Your task to perform on an android device: Go to CNN.com Image 0: 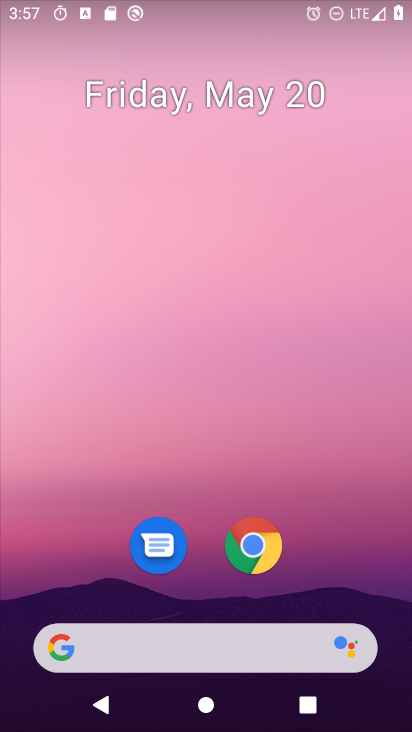
Step 0: drag from (252, 569) to (307, 4)
Your task to perform on an android device: Go to CNN.com Image 1: 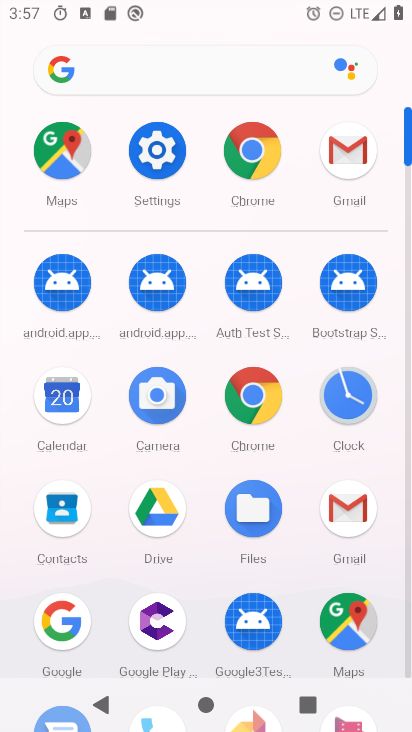
Step 1: click (248, 409)
Your task to perform on an android device: Go to CNN.com Image 2: 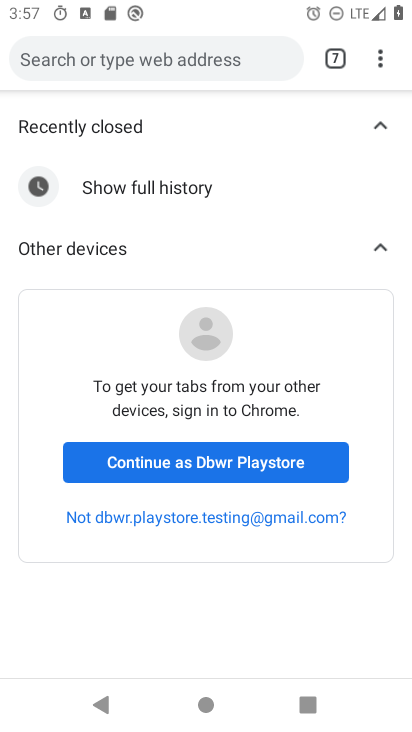
Step 2: click (199, 68)
Your task to perform on an android device: Go to CNN.com Image 3: 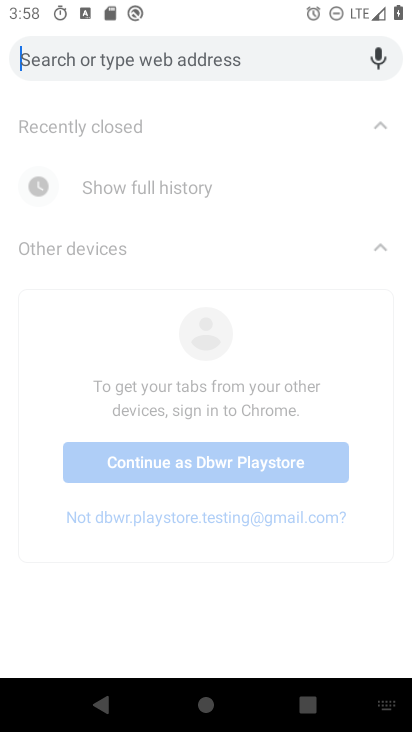
Step 3: type "cnn.com"
Your task to perform on an android device: Go to CNN.com Image 4: 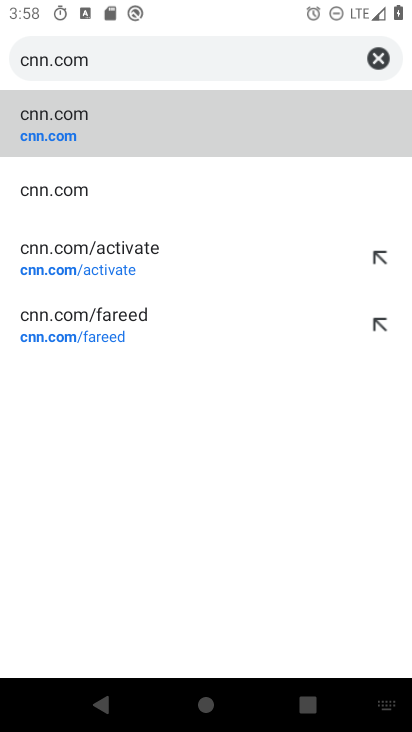
Step 4: click (112, 119)
Your task to perform on an android device: Go to CNN.com Image 5: 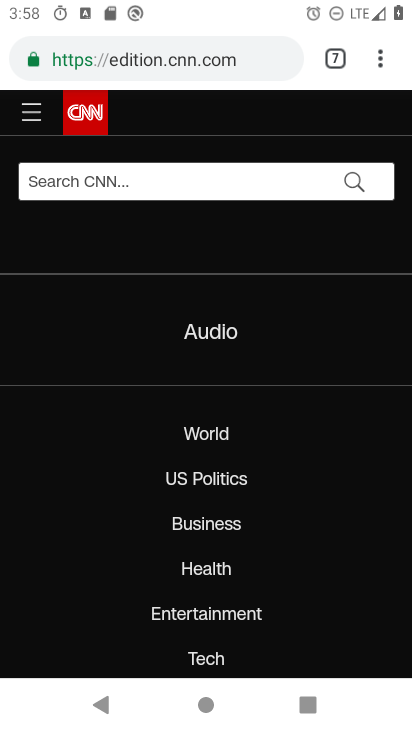
Step 5: task complete